Your task to perform on an android device: open the mobile data screen to see how much data has been used Image 0: 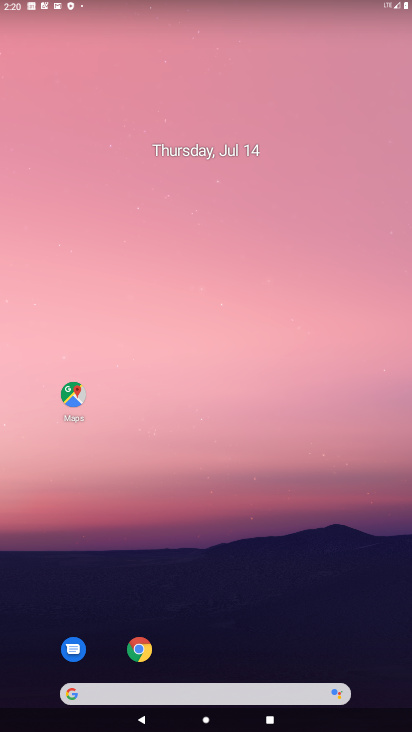
Step 0: drag from (377, 677) to (260, 20)
Your task to perform on an android device: open the mobile data screen to see how much data has been used Image 1: 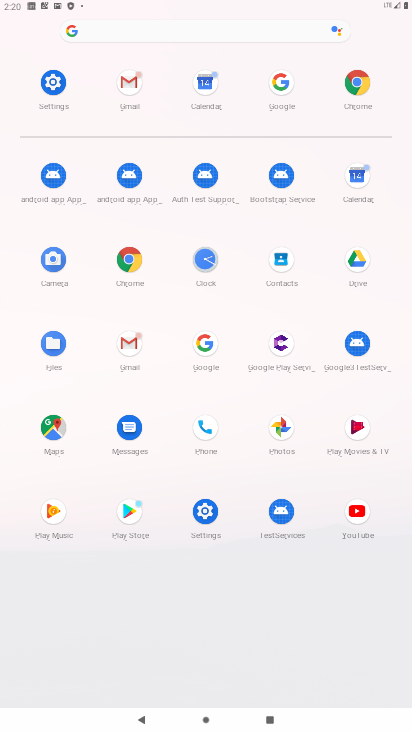
Step 1: click (211, 524)
Your task to perform on an android device: open the mobile data screen to see how much data has been used Image 2: 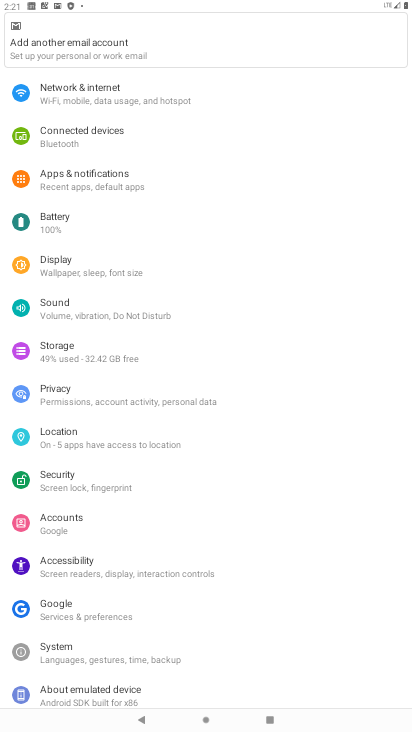
Step 2: click (112, 75)
Your task to perform on an android device: open the mobile data screen to see how much data has been used Image 3: 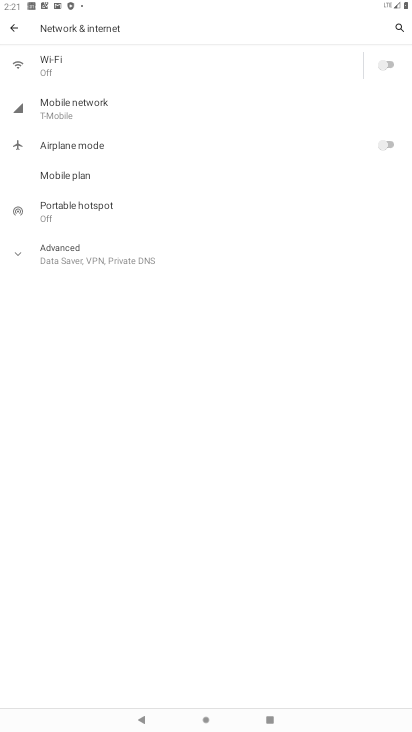
Step 3: click (58, 126)
Your task to perform on an android device: open the mobile data screen to see how much data has been used Image 4: 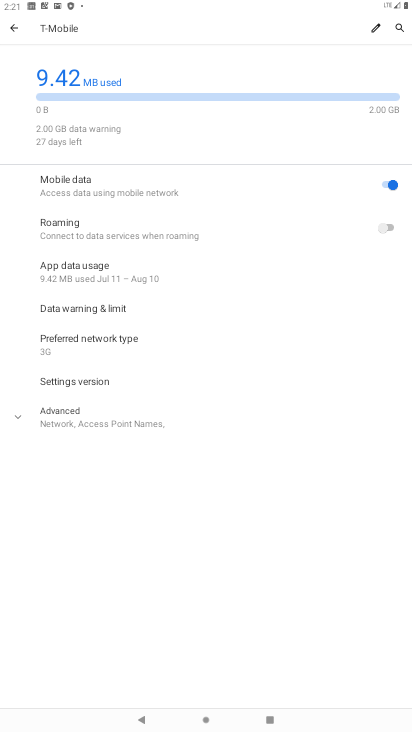
Step 4: click (96, 285)
Your task to perform on an android device: open the mobile data screen to see how much data has been used Image 5: 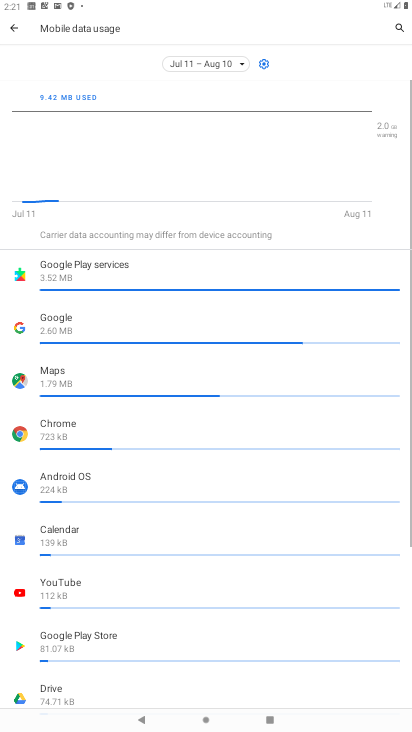
Step 5: task complete